Your task to perform on an android device: change text size in settings app Image 0: 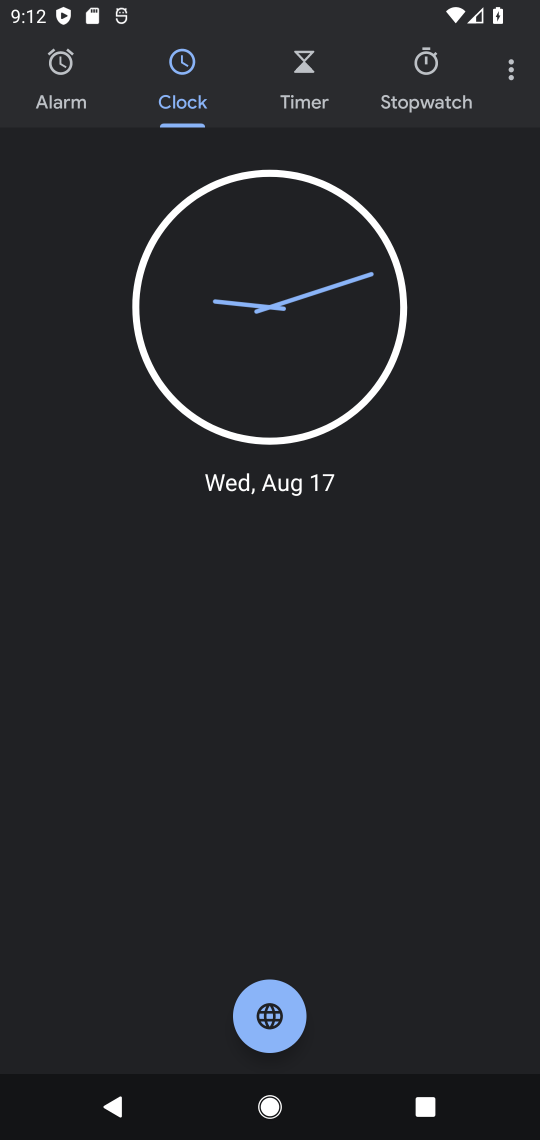
Step 0: press home button
Your task to perform on an android device: change text size in settings app Image 1: 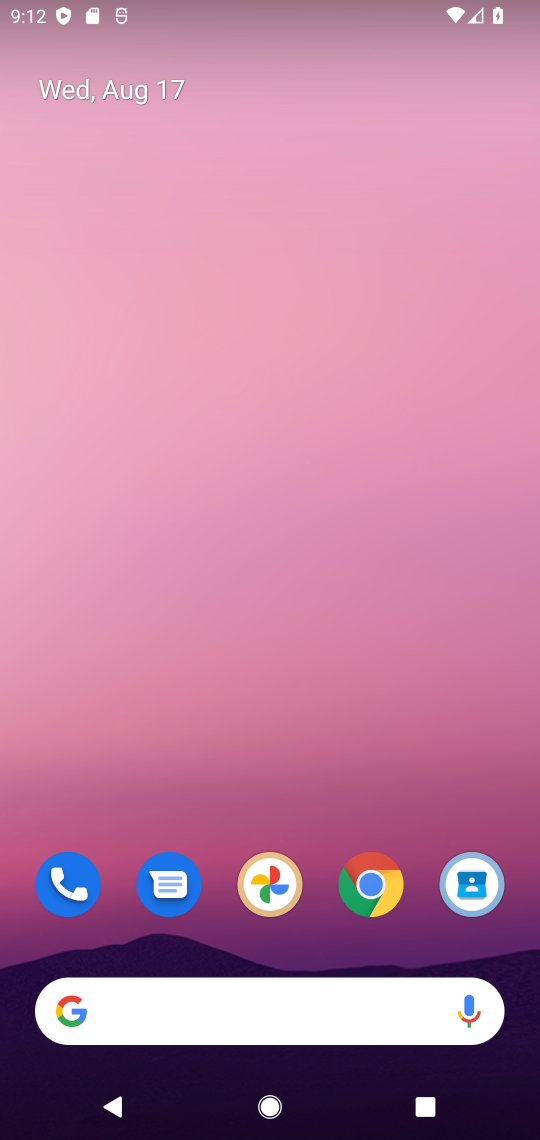
Step 1: drag from (270, 811) to (245, 49)
Your task to perform on an android device: change text size in settings app Image 2: 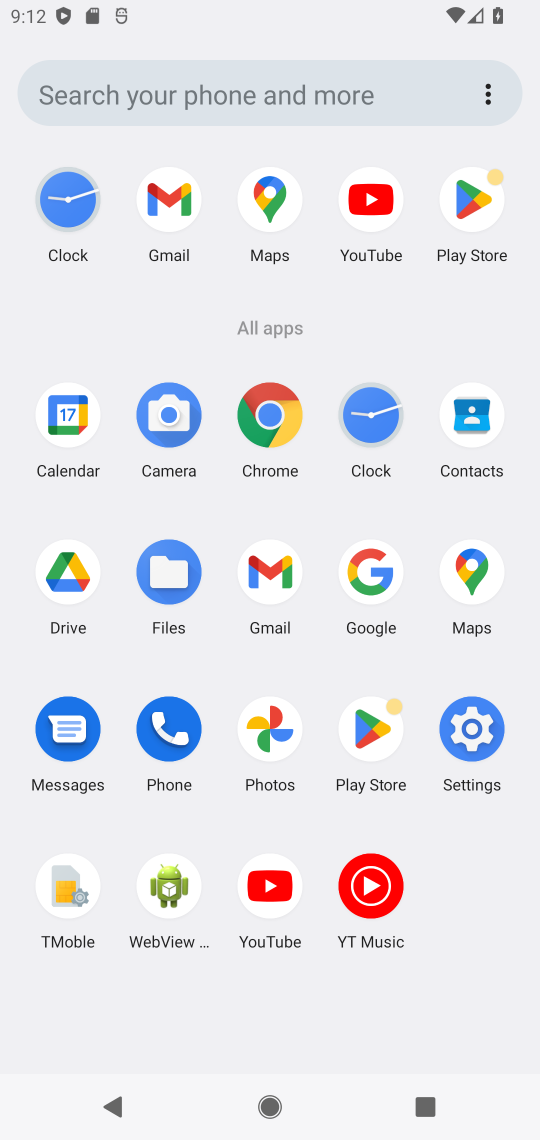
Step 2: click (487, 734)
Your task to perform on an android device: change text size in settings app Image 3: 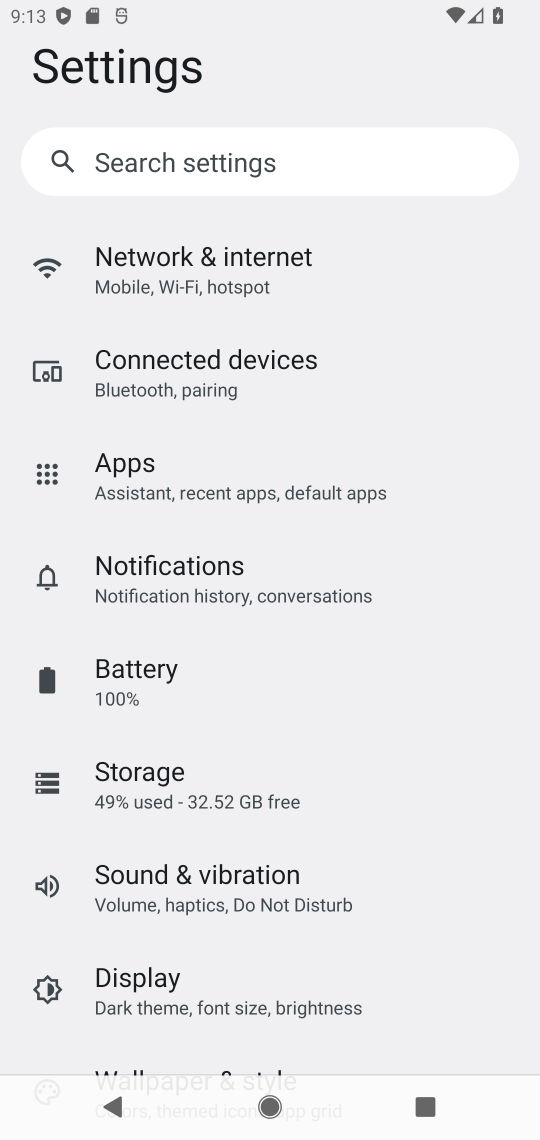
Step 3: drag from (194, 866) to (214, 541)
Your task to perform on an android device: change text size in settings app Image 4: 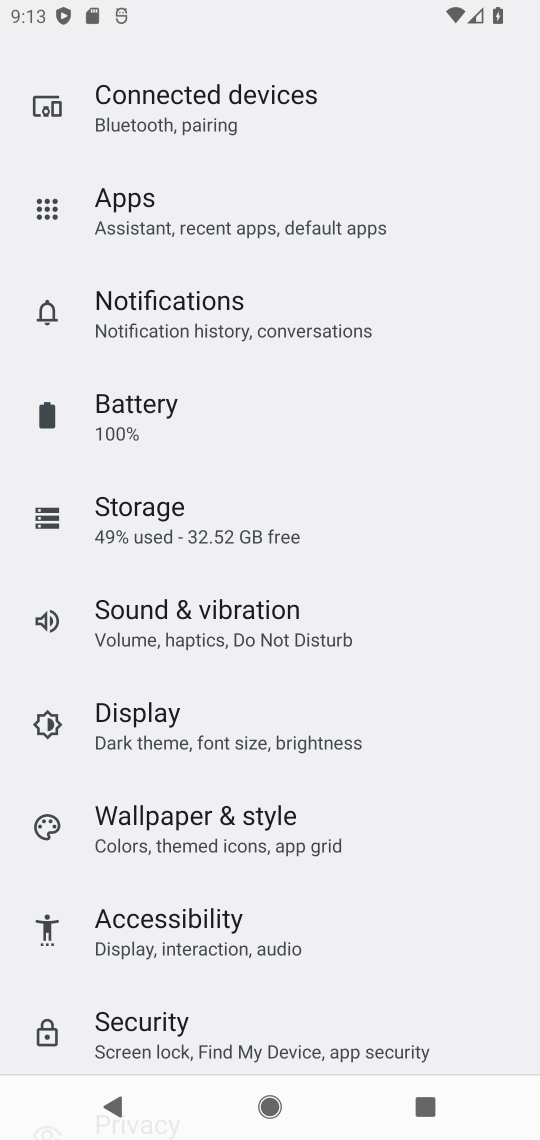
Step 4: click (158, 736)
Your task to perform on an android device: change text size in settings app Image 5: 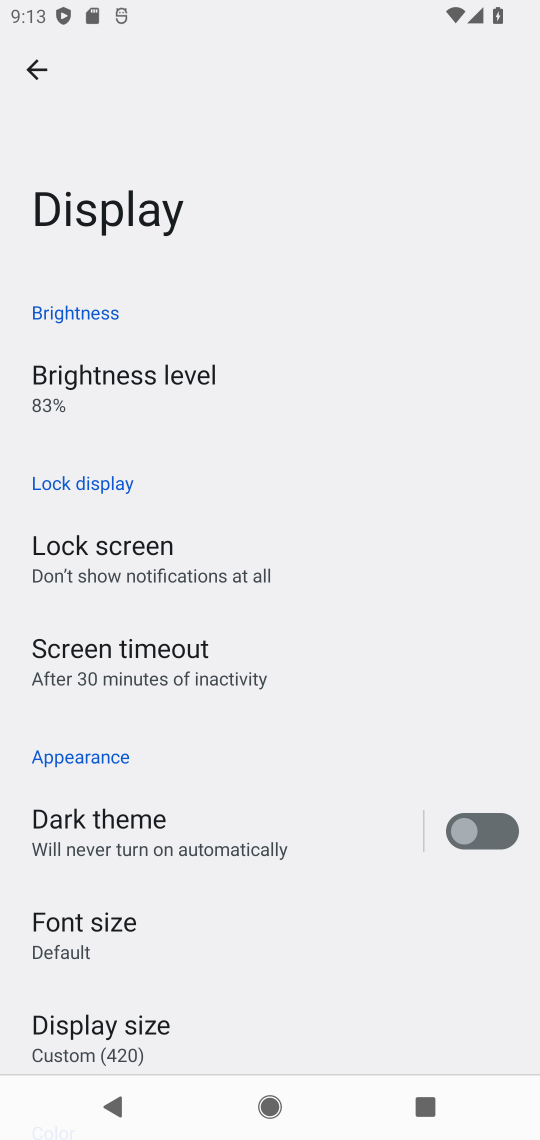
Step 5: drag from (292, 745) to (331, 484)
Your task to perform on an android device: change text size in settings app Image 6: 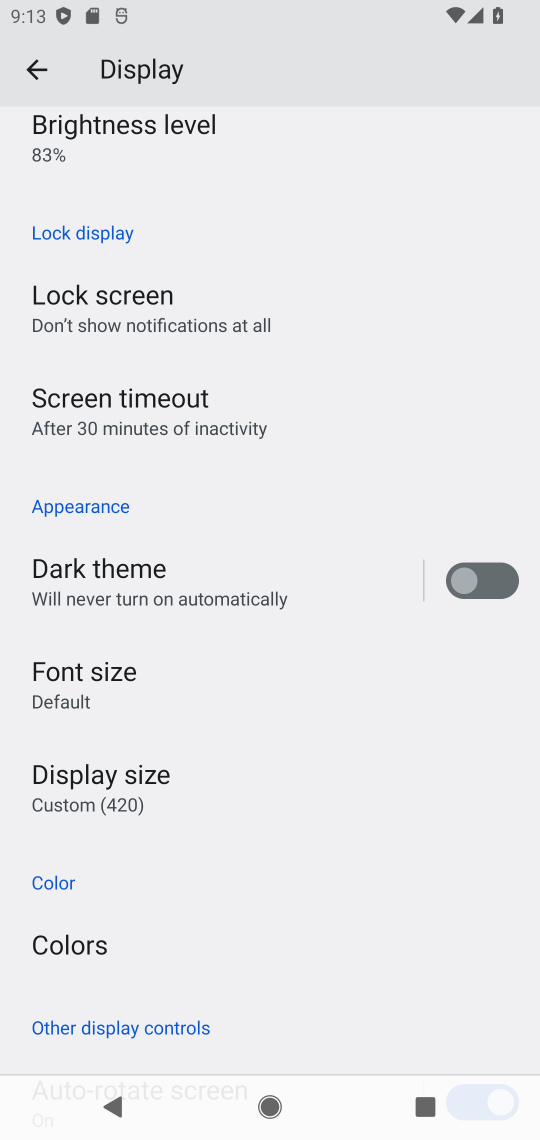
Step 6: click (193, 798)
Your task to perform on an android device: change text size in settings app Image 7: 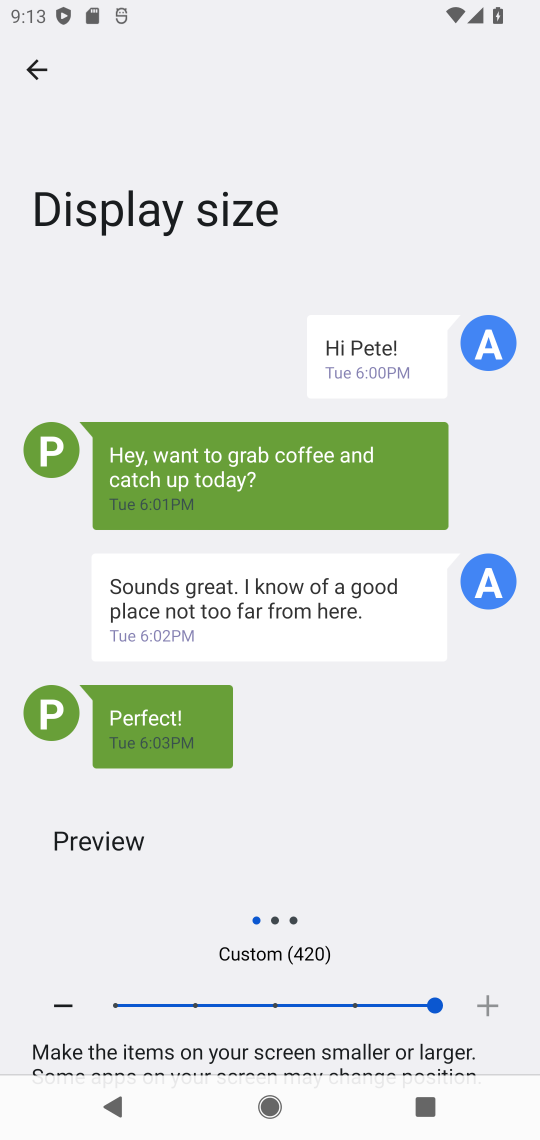
Step 7: click (34, 79)
Your task to perform on an android device: change text size in settings app Image 8: 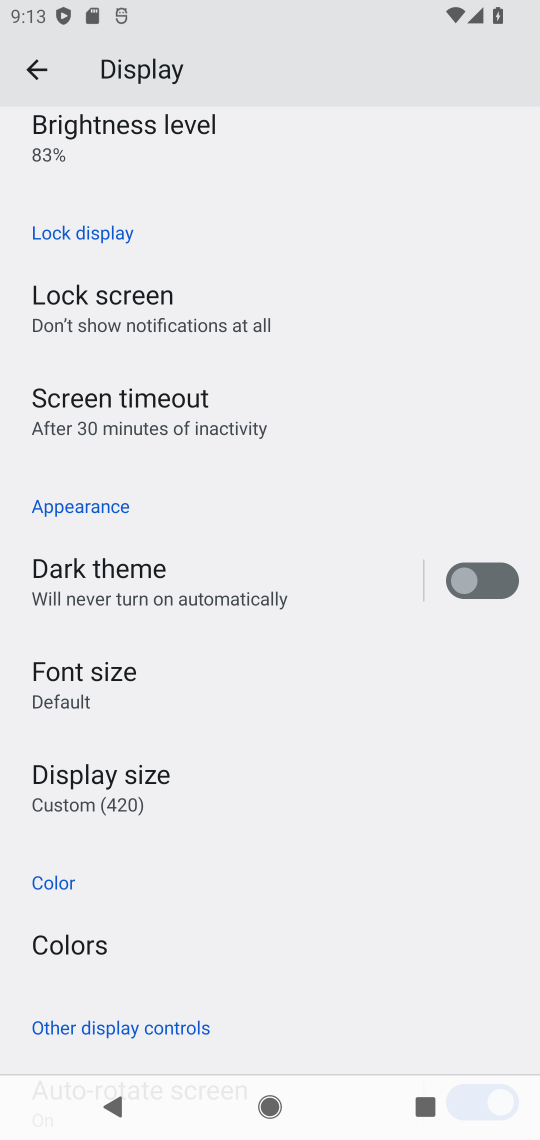
Step 8: click (177, 683)
Your task to perform on an android device: change text size in settings app Image 9: 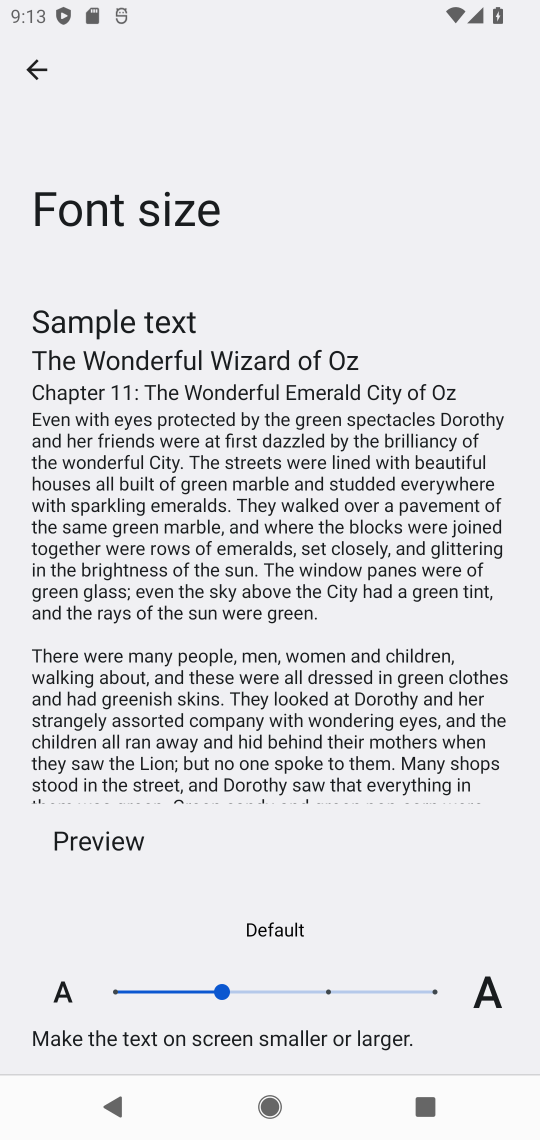
Step 9: click (327, 993)
Your task to perform on an android device: change text size in settings app Image 10: 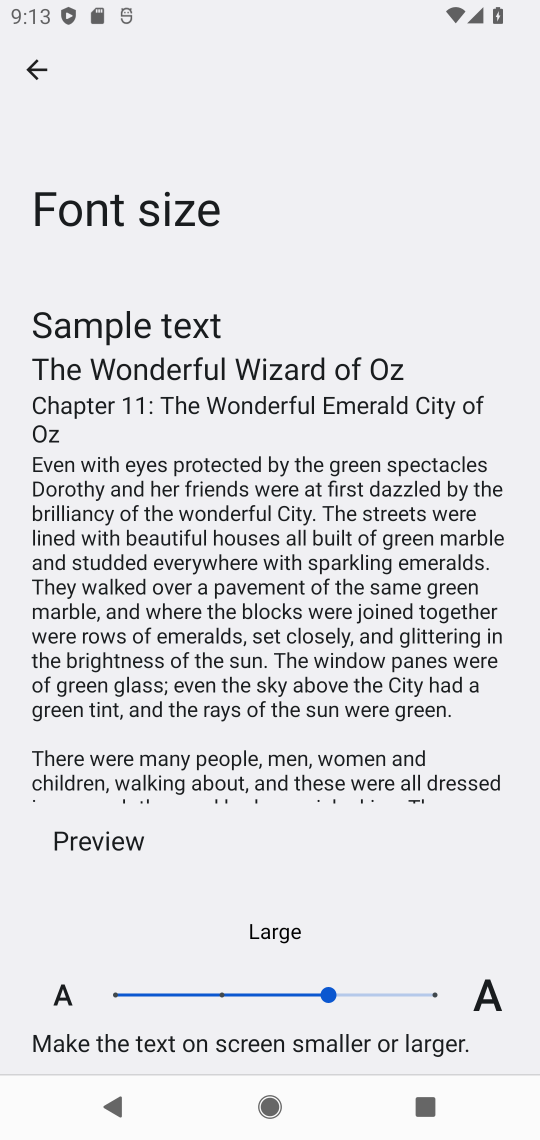
Step 10: task complete